Your task to perform on an android device: find which apps use the phone's location Image 0: 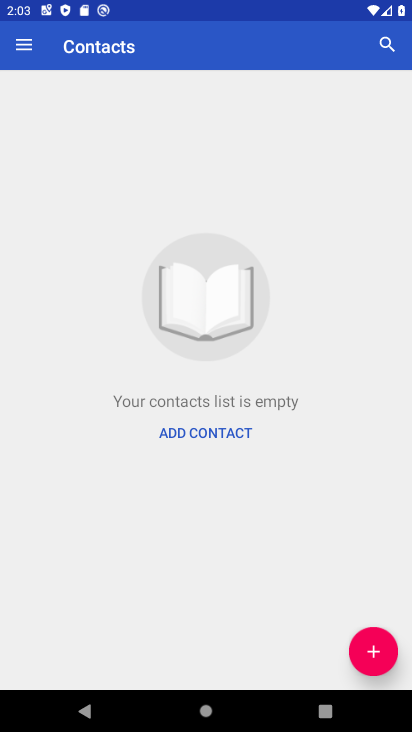
Step 0: press home button
Your task to perform on an android device: find which apps use the phone's location Image 1: 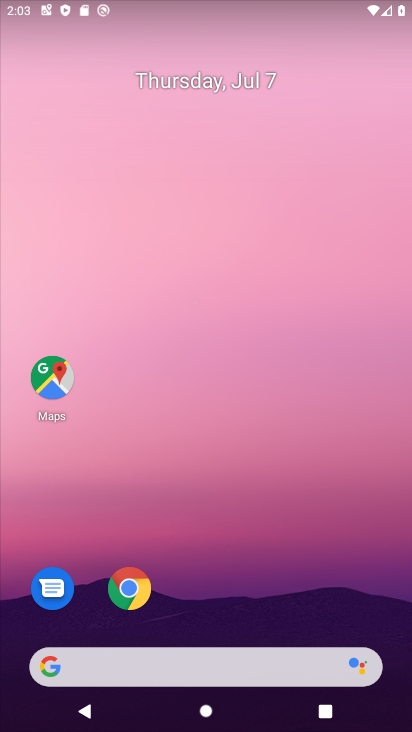
Step 1: drag from (27, 715) to (62, 172)
Your task to perform on an android device: find which apps use the phone's location Image 2: 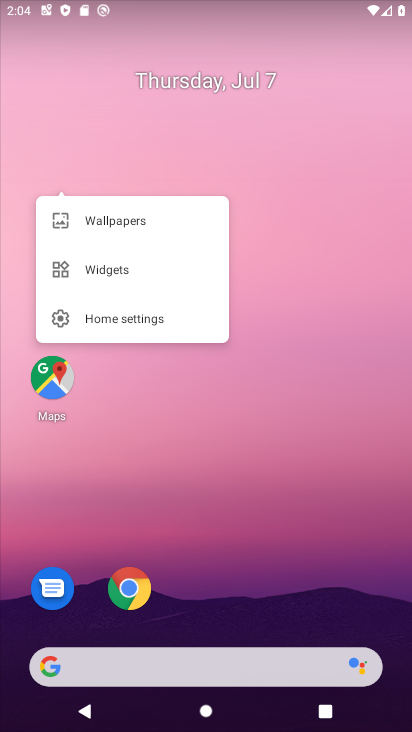
Step 2: drag from (35, 722) to (64, 59)
Your task to perform on an android device: find which apps use the phone's location Image 3: 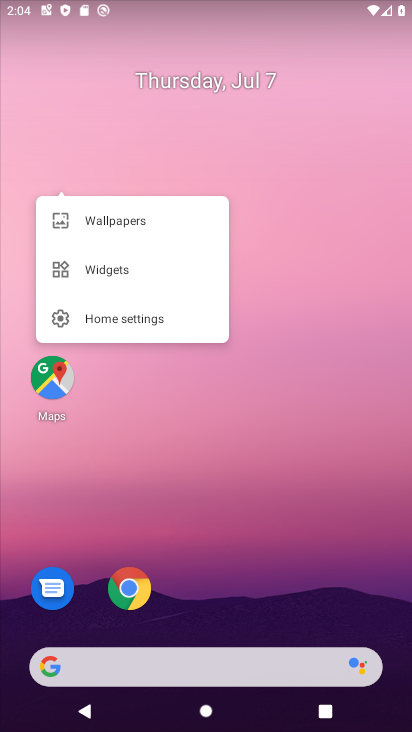
Step 3: drag from (20, 711) to (128, 1)
Your task to perform on an android device: find which apps use the phone's location Image 4: 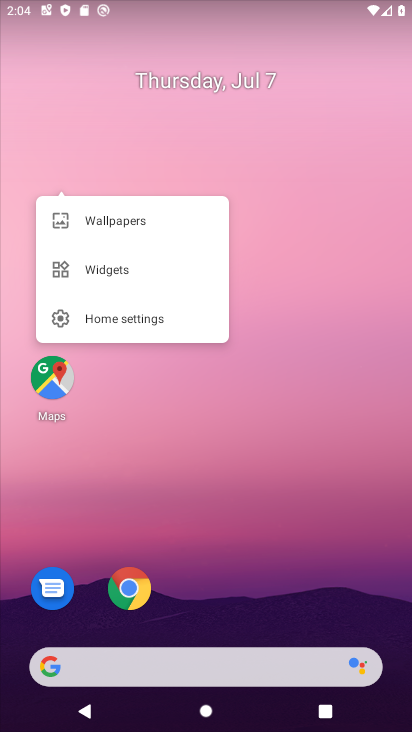
Step 4: drag from (28, 709) to (153, 53)
Your task to perform on an android device: find which apps use the phone's location Image 5: 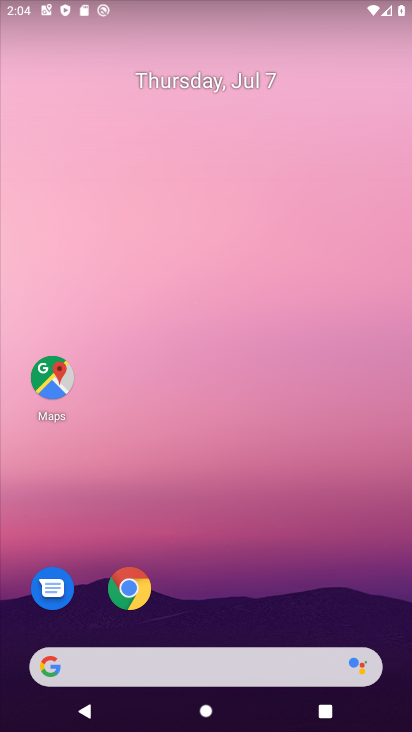
Step 5: drag from (55, 700) to (117, 93)
Your task to perform on an android device: find which apps use the phone's location Image 6: 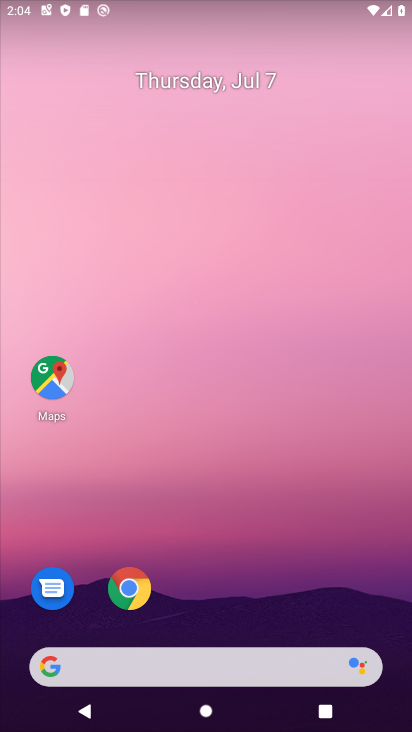
Step 6: drag from (50, 709) to (134, 0)
Your task to perform on an android device: find which apps use the phone's location Image 7: 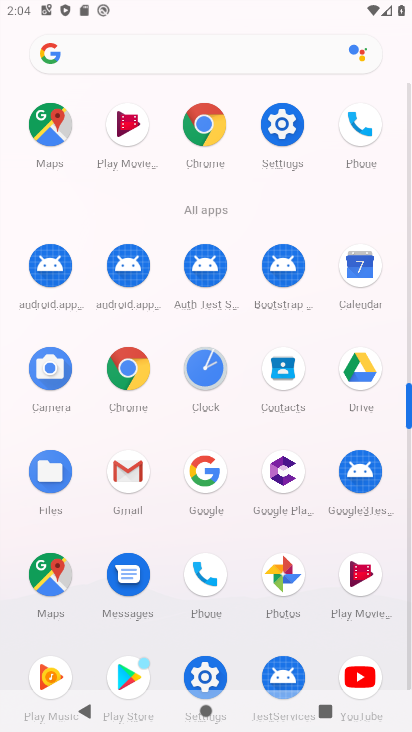
Step 7: click (204, 674)
Your task to perform on an android device: find which apps use the phone's location Image 8: 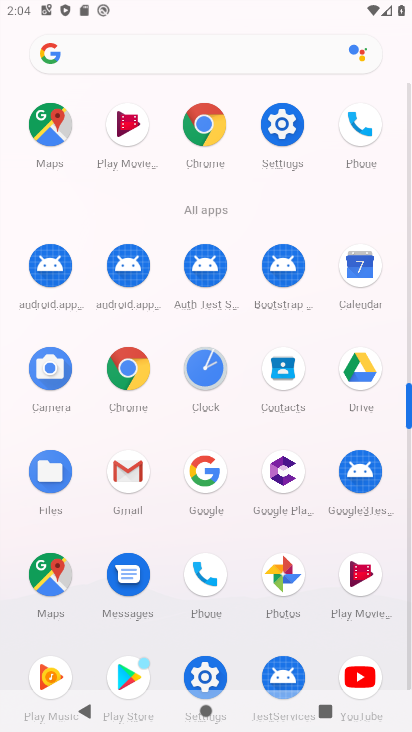
Step 8: click (204, 674)
Your task to perform on an android device: find which apps use the phone's location Image 9: 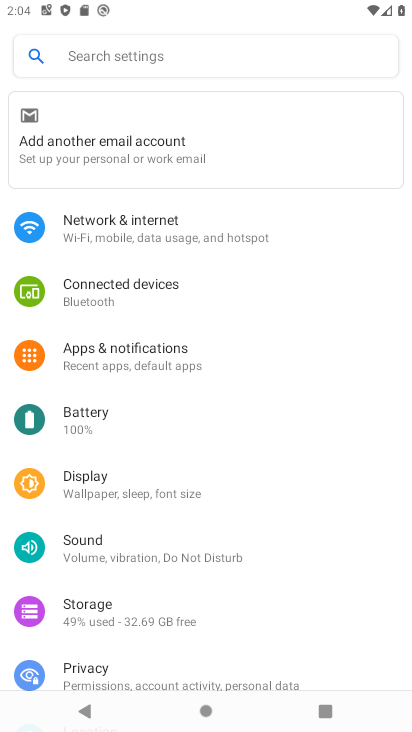
Step 9: drag from (325, 574) to (237, 211)
Your task to perform on an android device: find which apps use the phone's location Image 10: 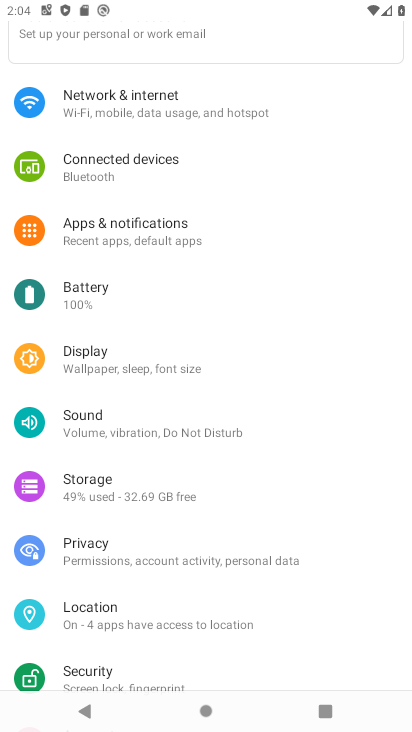
Step 10: click (93, 614)
Your task to perform on an android device: find which apps use the phone's location Image 11: 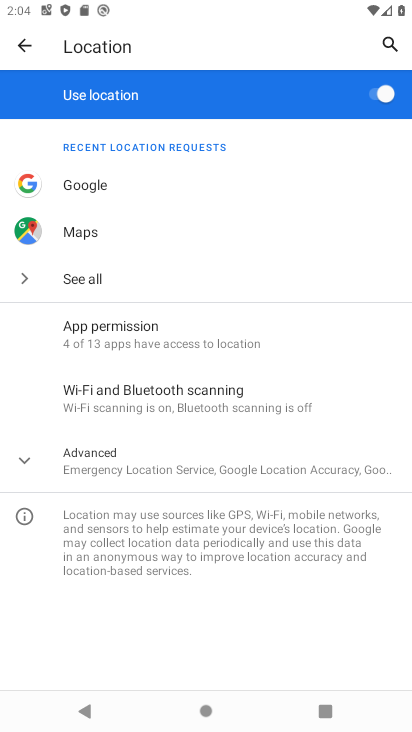
Step 11: click (78, 281)
Your task to perform on an android device: find which apps use the phone's location Image 12: 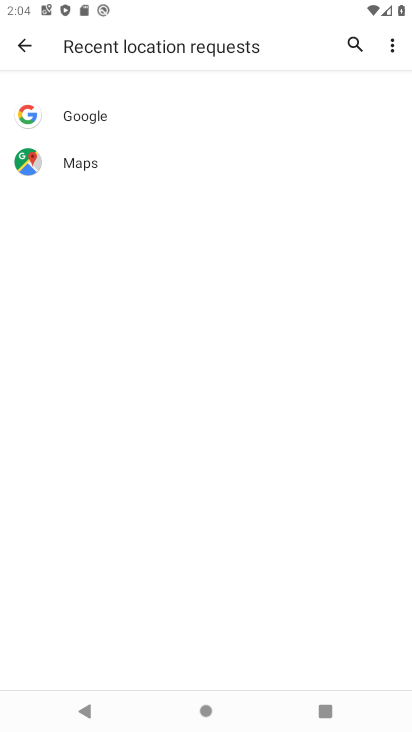
Step 12: click (24, 48)
Your task to perform on an android device: find which apps use the phone's location Image 13: 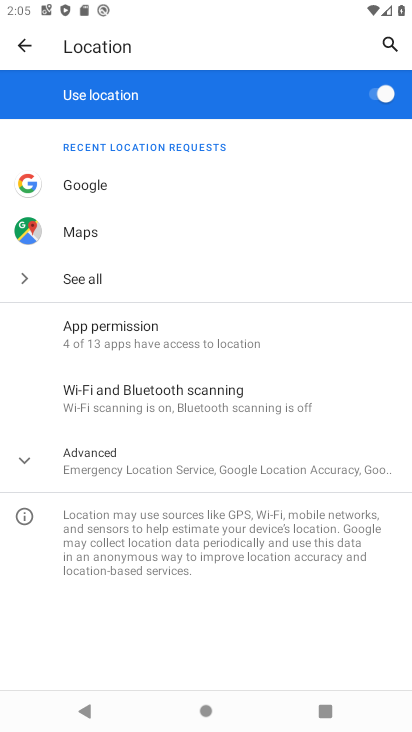
Step 13: click (105, 457)
Your task to perform on an android device: find which apps use the phone's location Image 14: 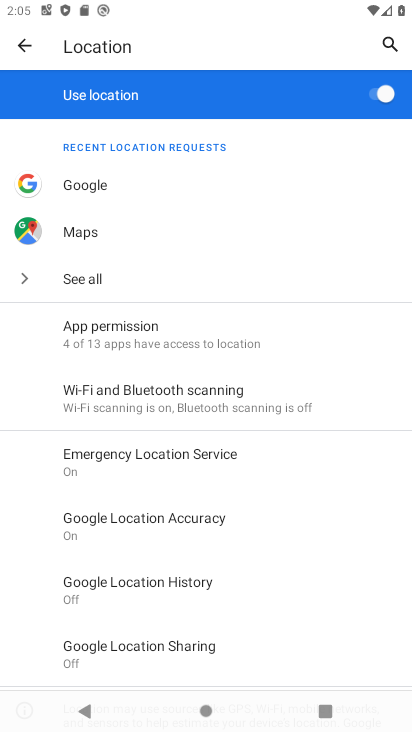
Step 14: click (83, 333)
Your task to perform on an android device: find which apps use the phone's location Image 15: 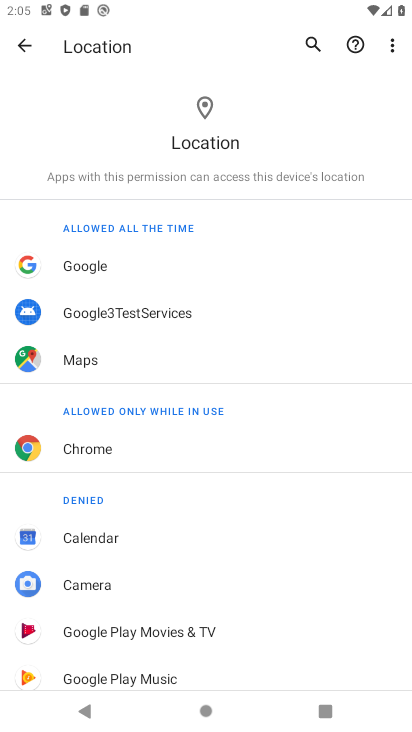
Step 15: drag from (287, 601) to (153, 11)
Your task to perform on an android device: find which apps use the phone's location Image 16: 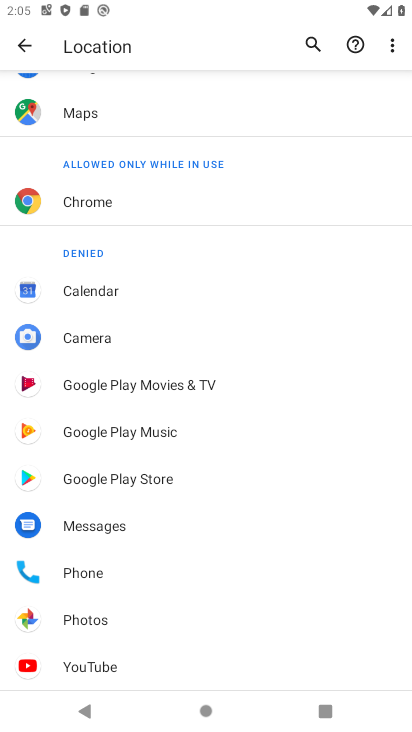
Step 16: click (88, 579)
Your task to perform on an android device: find which apps use the phone's location Image 17: 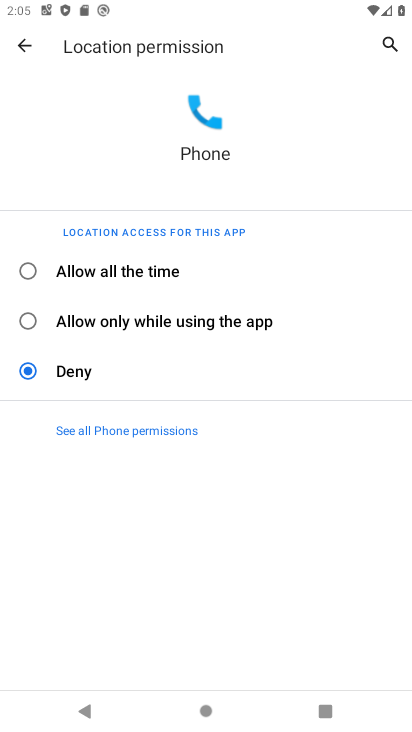
Step 17: task complete